Your task to perform on an android device: turn off javascript in the chrome app Image 0: 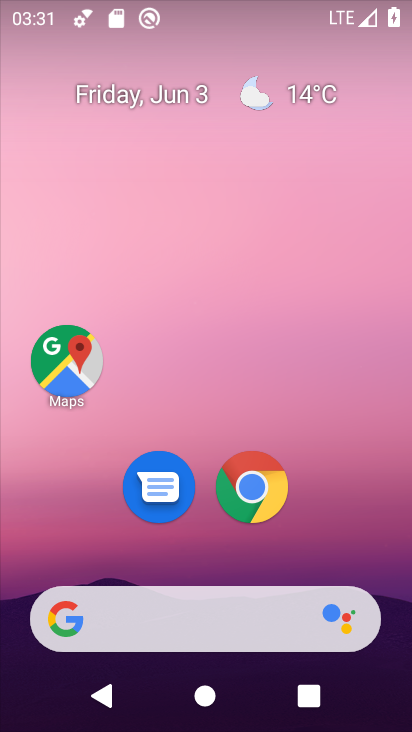
Step 0: press home button
Your task to perform on an android device: turn off javascript in the chrome app Image 1: 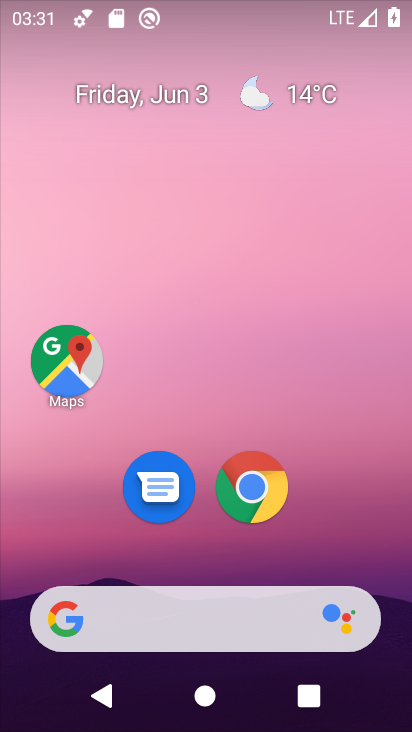
Step 1: click (256, 482)
Your task to perform on an android device: turn off javascript in the chrome app Image 2: 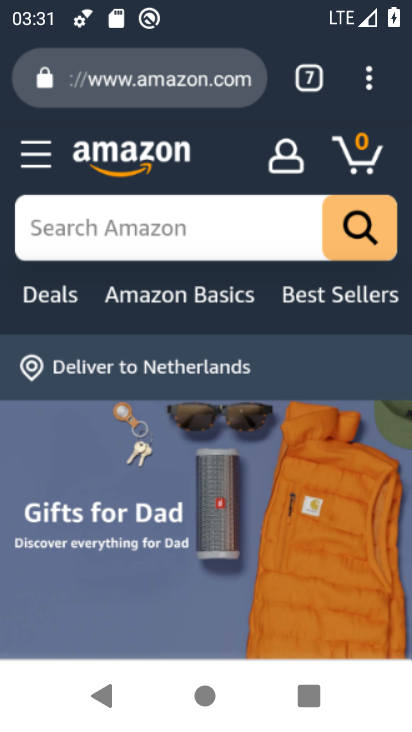
Step 2: click (371, 69)
Your task to perform on an android device: turn off javascript in the chrome app Image 3: 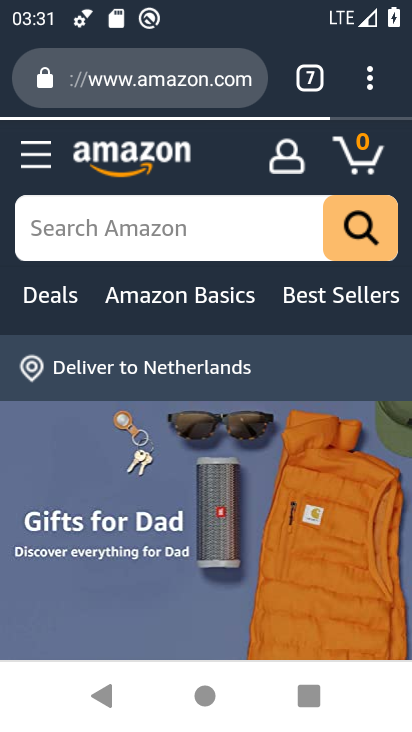
Step 3: click (374, 81)
Your task to perform on an android device: turn off javascript in the chrome app Image 4: 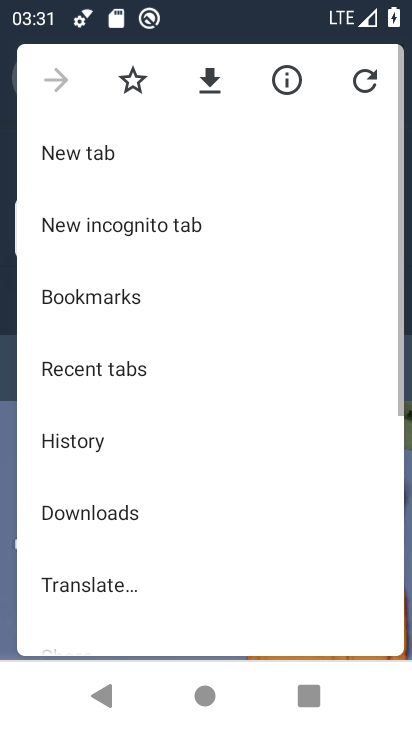
Step 4: drag from (229, 479) to (152, 4)
Your task to perform on an android device: turn off javascript in the chrome app Image 5: 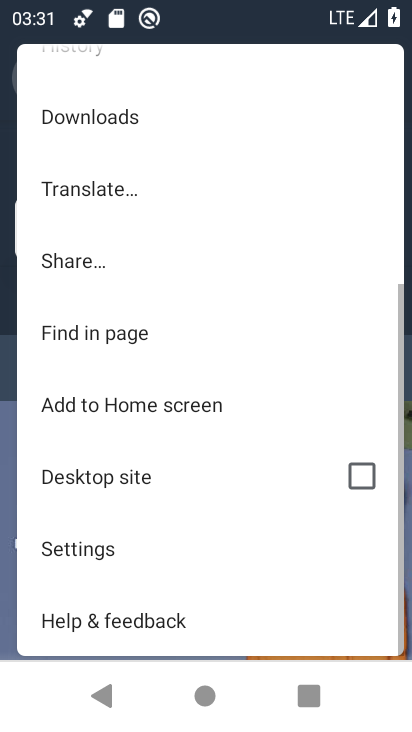
Step 5: click (127, 530)
Your task to perform on an android device: turn off javascript in the chrome app Image 6: 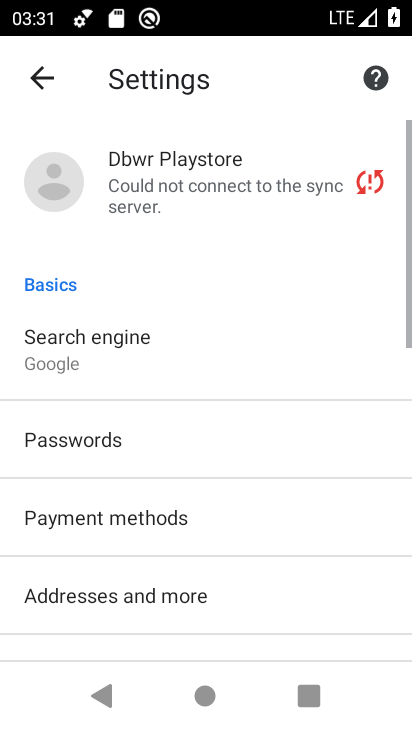
Step 6: drag from (188, 563) to (144, 23)
Your task to perform on an android device: turn off javascript in the chrome app Image 7: 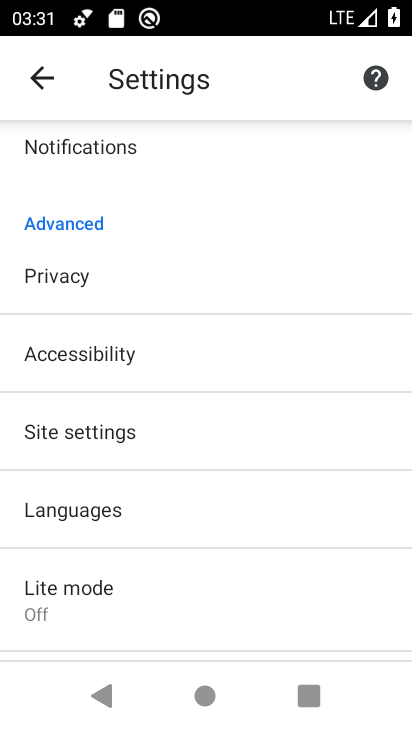
Step 7: click (143, 430)
Your task to perform on an android device: turn off javascript in the chrome app Image 8: 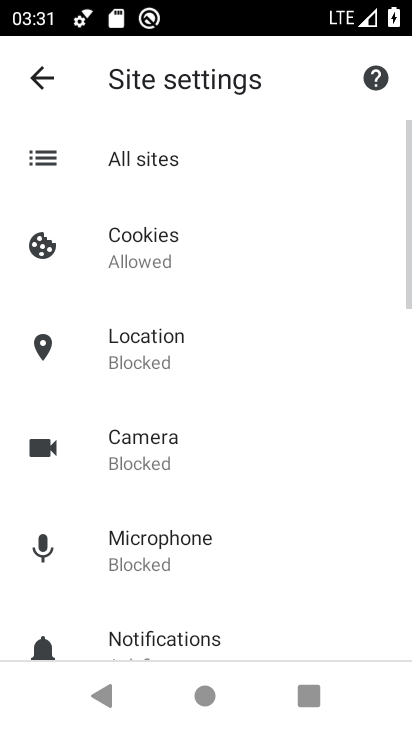
Step 8: drag from (210, 393) to (188, 162)
Your task to perform on an android device: turn off javascript in the chrome app Image 9: 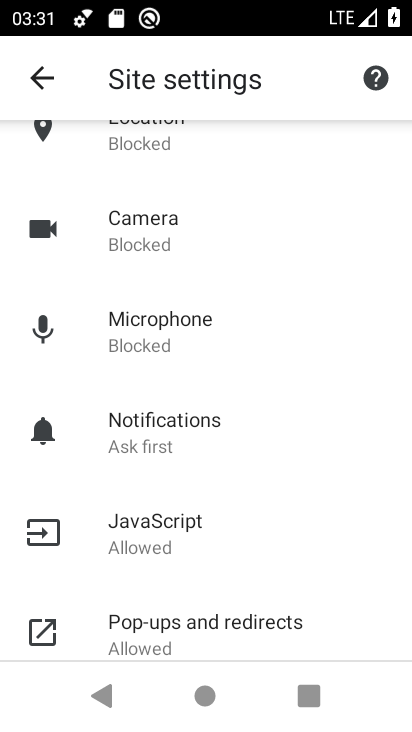
Step 9: click (169, 520)
Your task to perform on an android device: turn off javascript in the chrome app Image 10: 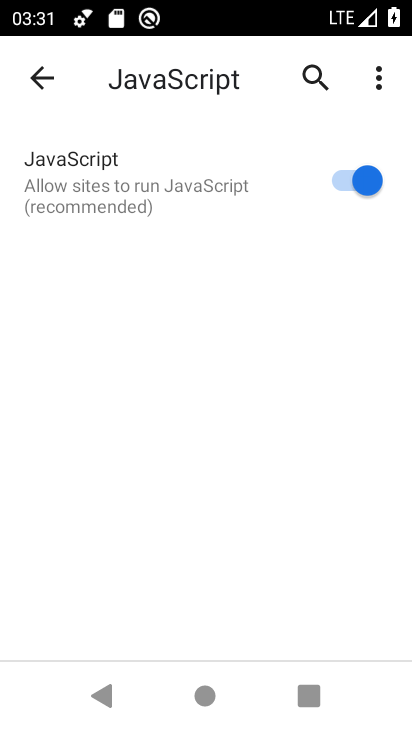
Step 10: click (354, 178)
Your task to perform on an android device: turn off javascript in the chrome app Image 11: 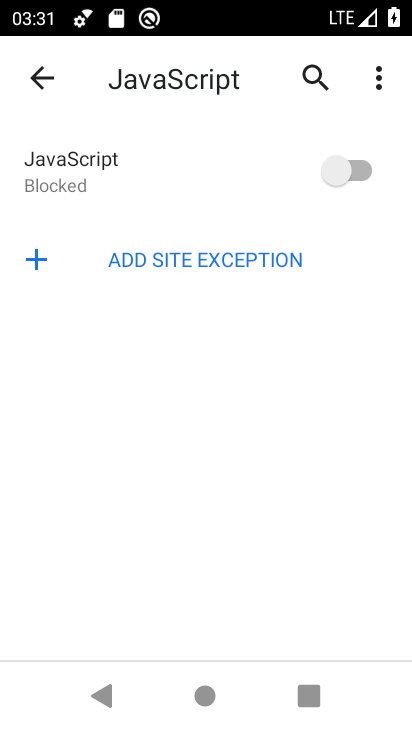
Step 11: task complete